Your task to perform on an android device: find snoozed emails in the gmail app Image 0: 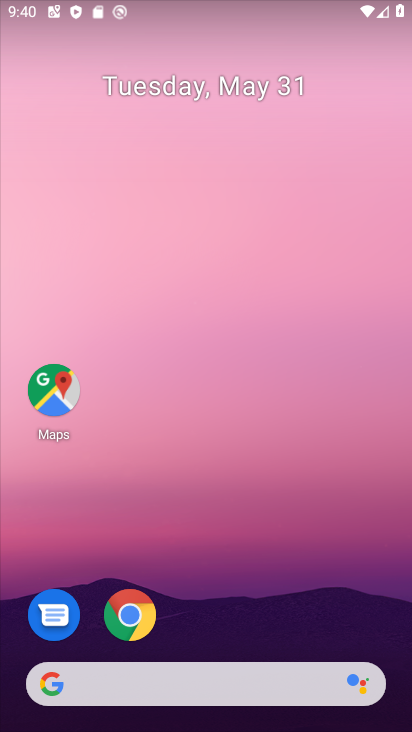
Step 0: drag from (245, 638) to (290, 11)
Your task to perform on an android device: find snoozed emails in the gmail app Image 1: 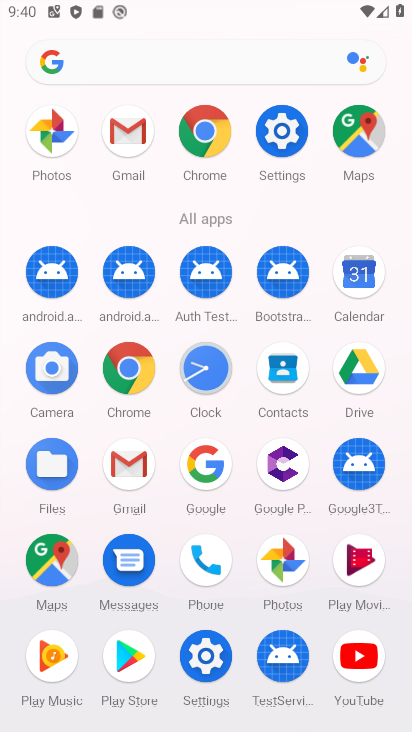
Step 1: click (131, 457)
Your task to perform on an android device: find snoozed emails in the gmail app Image 2: 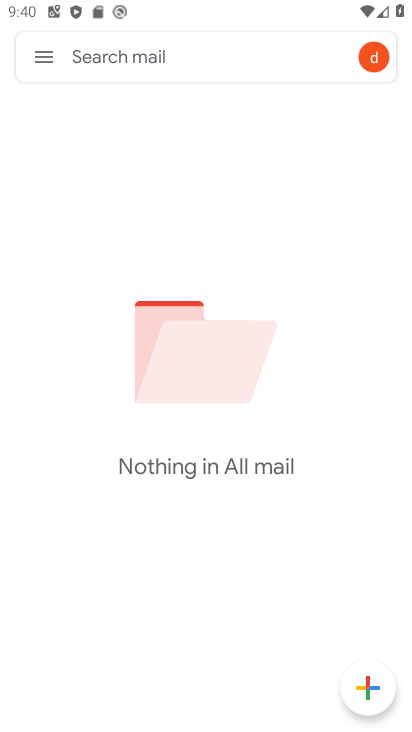
Step 2: click (43, 63)
Your task to perform on an android device: find snoozed emails in the gmail app Image 3: 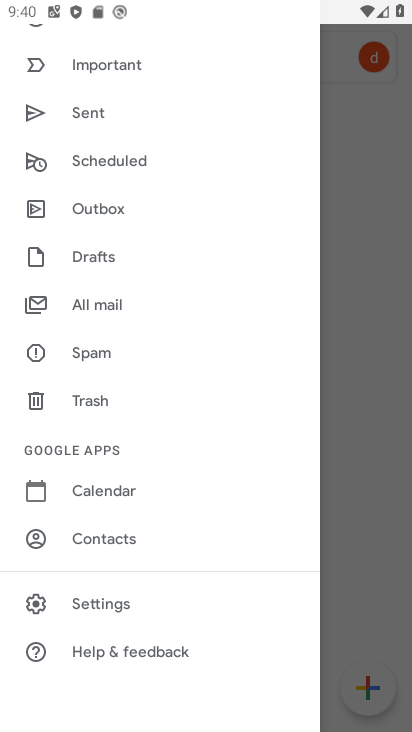
Step 3: drag from (115, 187) to (159, 536)
Your task to perform on an android device: find snoozed emails in the gmail app Image 4: 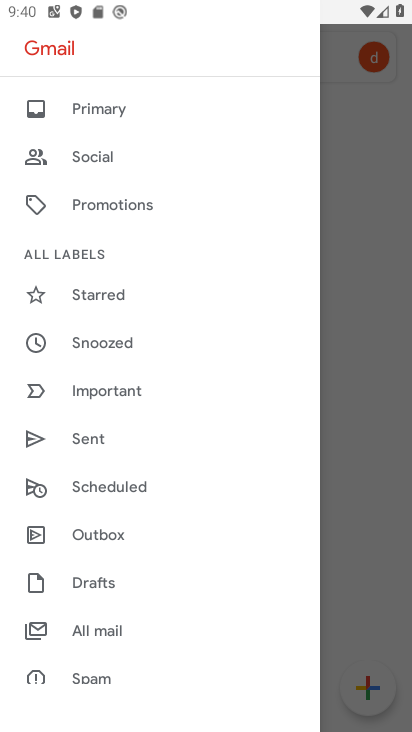
Step 4: click (118, 331)
Your task to perform on an android device: find snoozed emails in the gmail app Image 5: 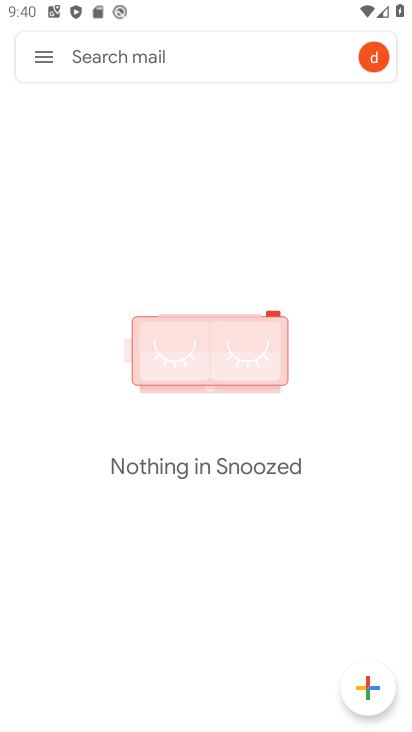
Step 5: task complete